Your task to perform on an android device: turn off priority inbox in the gmail app Image 0: 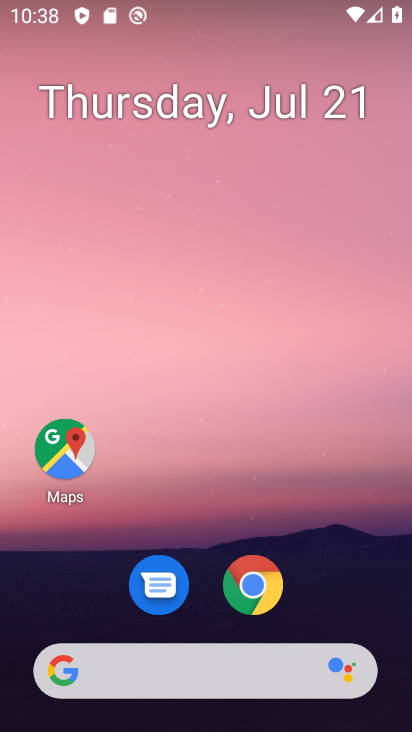
Step 0: drag from (177, 653) to (324, 227)
Your task to perform on an android device: turn off priority inbox in the gmail app Image 1: 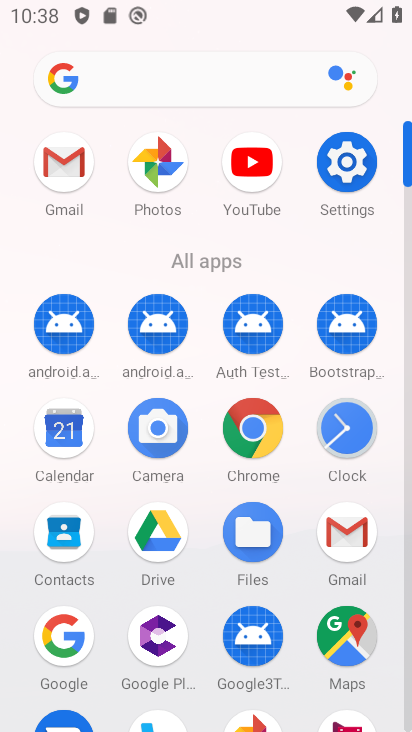
Step 1: click (70, 163)
Your task to perform on an android device: turn off priority inbox in the gmail app Image 2: 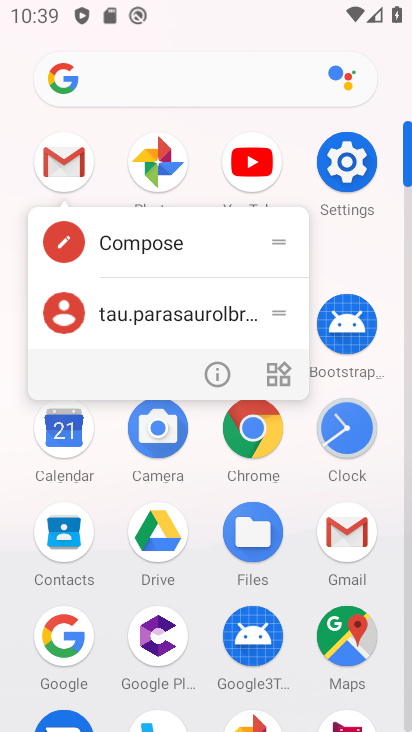
Step 2: click (70, 163)
Your task to perform on an android device: turn off priority inbox in the gmail app Image 3: 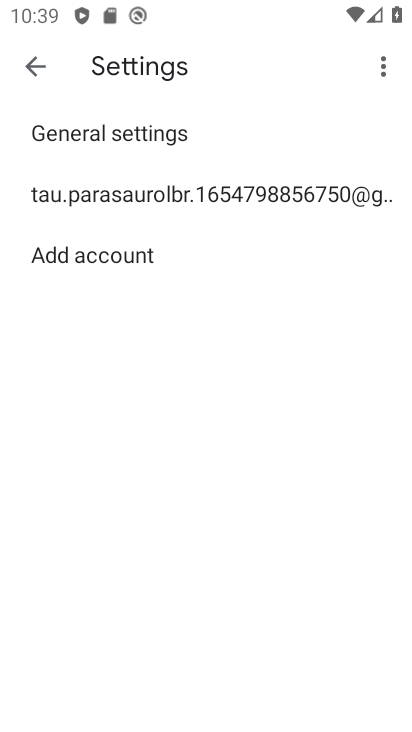
Step 3: click (184, 187)
Your task to perform on an android device: turn off priority inbox in the gmail app Image 4: 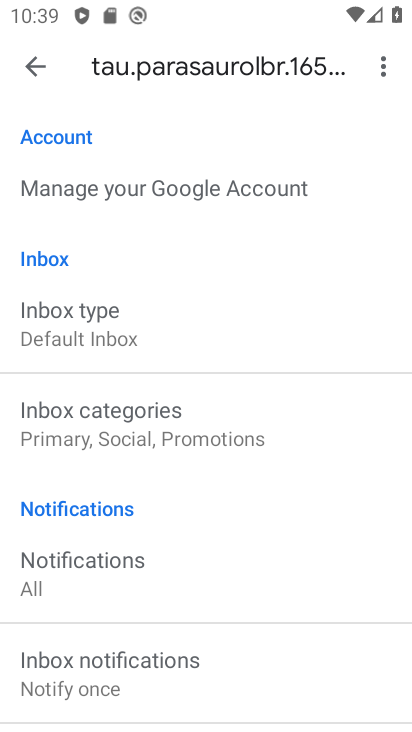
Step 4: click (72, 340)
Your task to perform on an android device: turn off priority inbox in the gmail app Image 5: 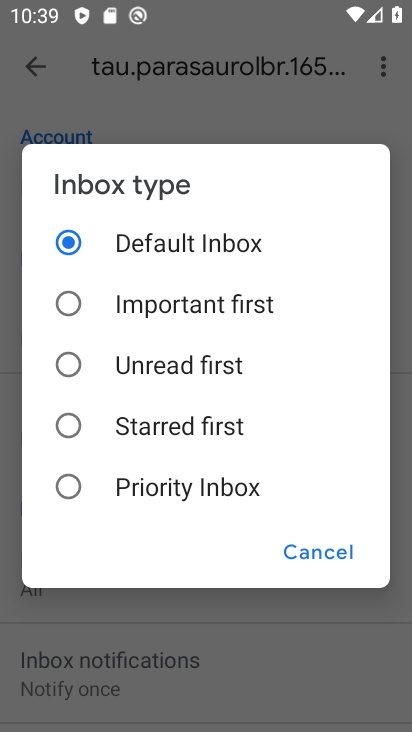
Step 5: task complete